Your task to perform on an android device: Search for dell xps on target.com, select the first entry, and add it to the cart. Image 0: 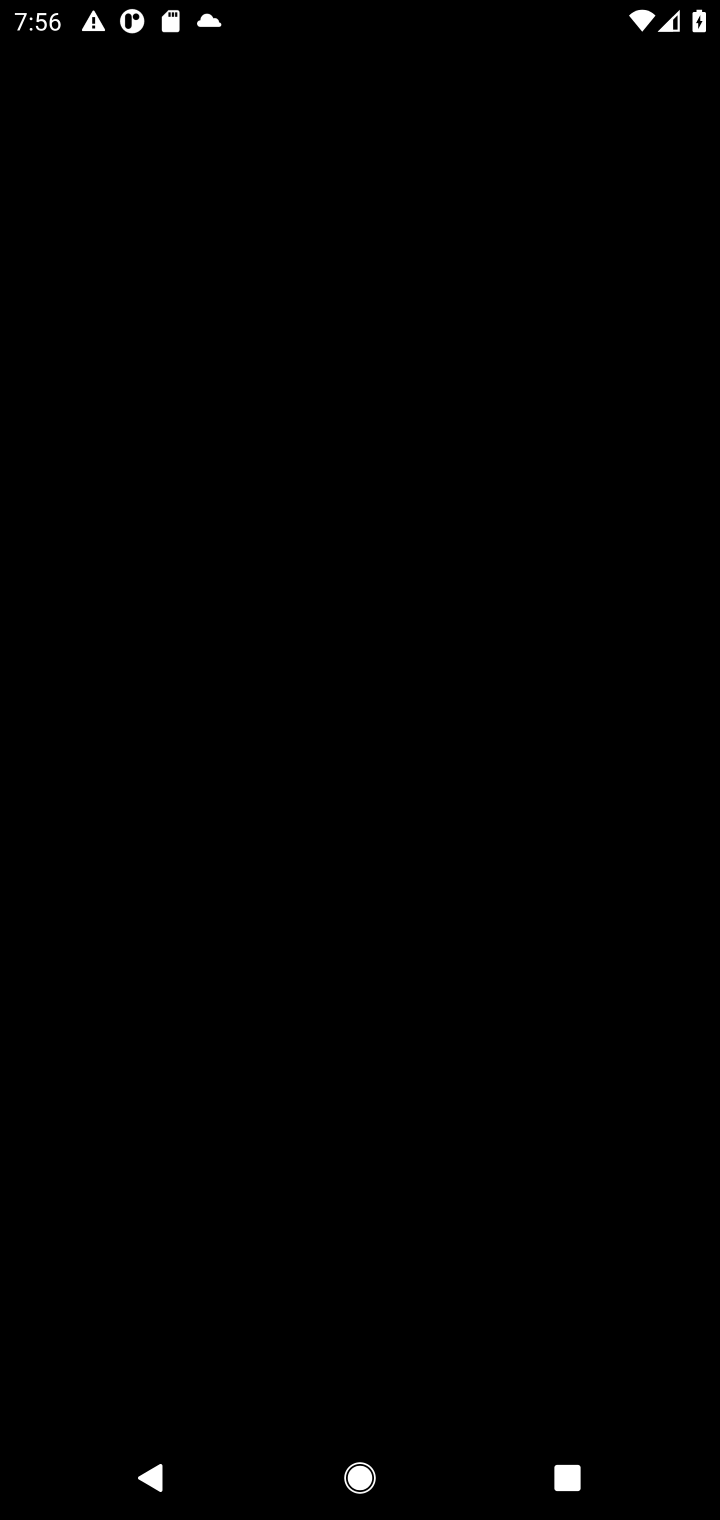
Step 0: press home button
Your task to perform on an android device: Search for dell xps on target.com, select the first entry, and add it to the cart. Image 1: 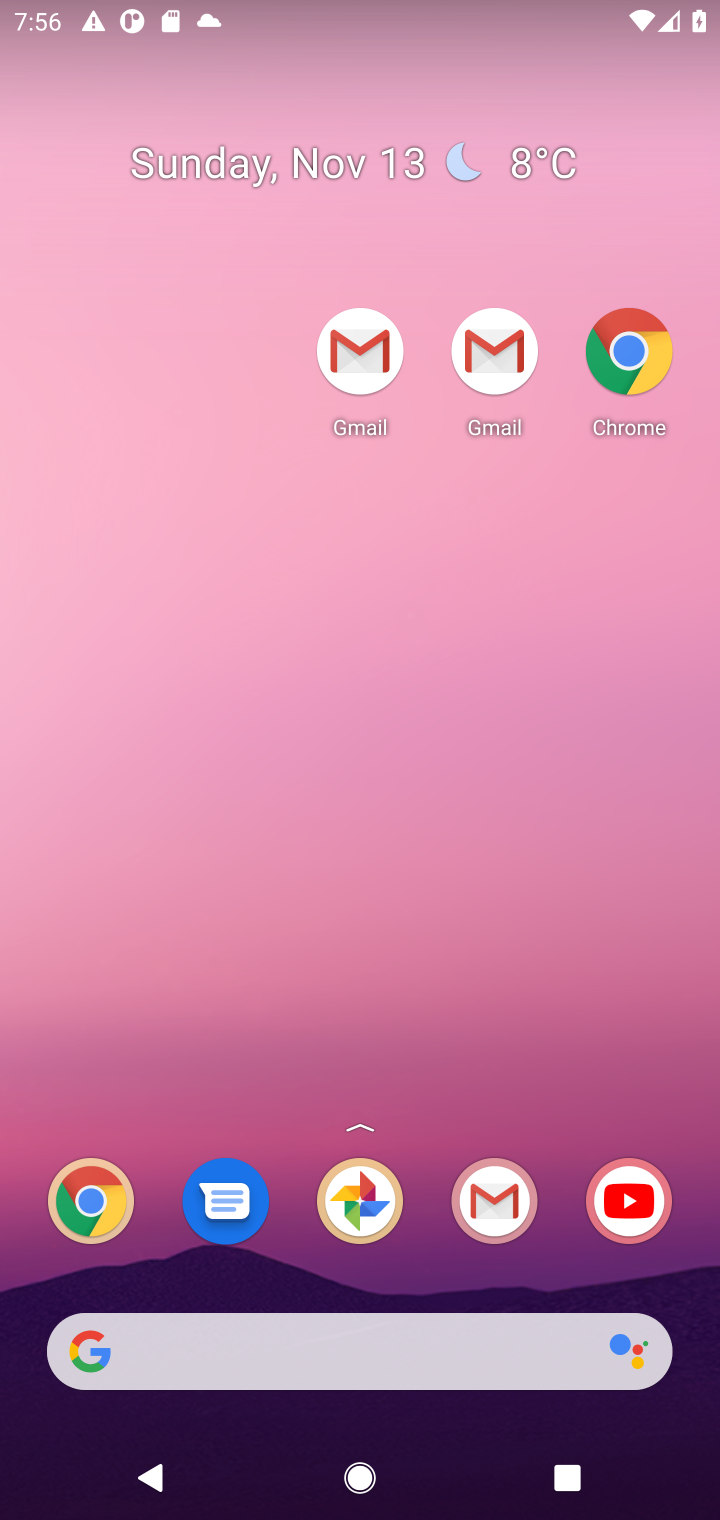
Step 1: drag from (412, 1287) to (289, 54)
Your task to perform on an android device: Search for dell xps on target.com, select the first entry, and add it to the cart. Image 2: 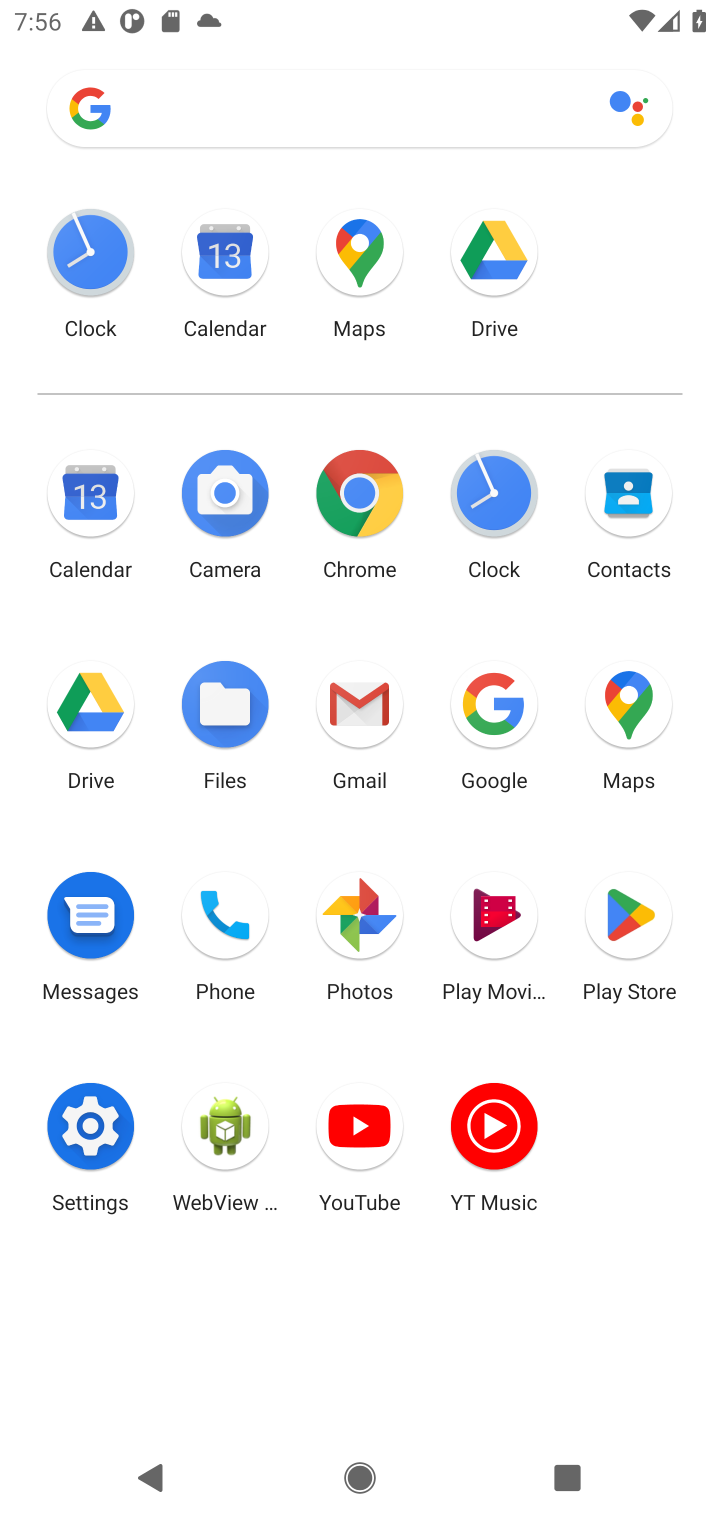
Step 2: click (351, 498)
Your task to perform on an android device: Search for dell xps on target.com, select the first entry, and add it to the cart. Image 3: 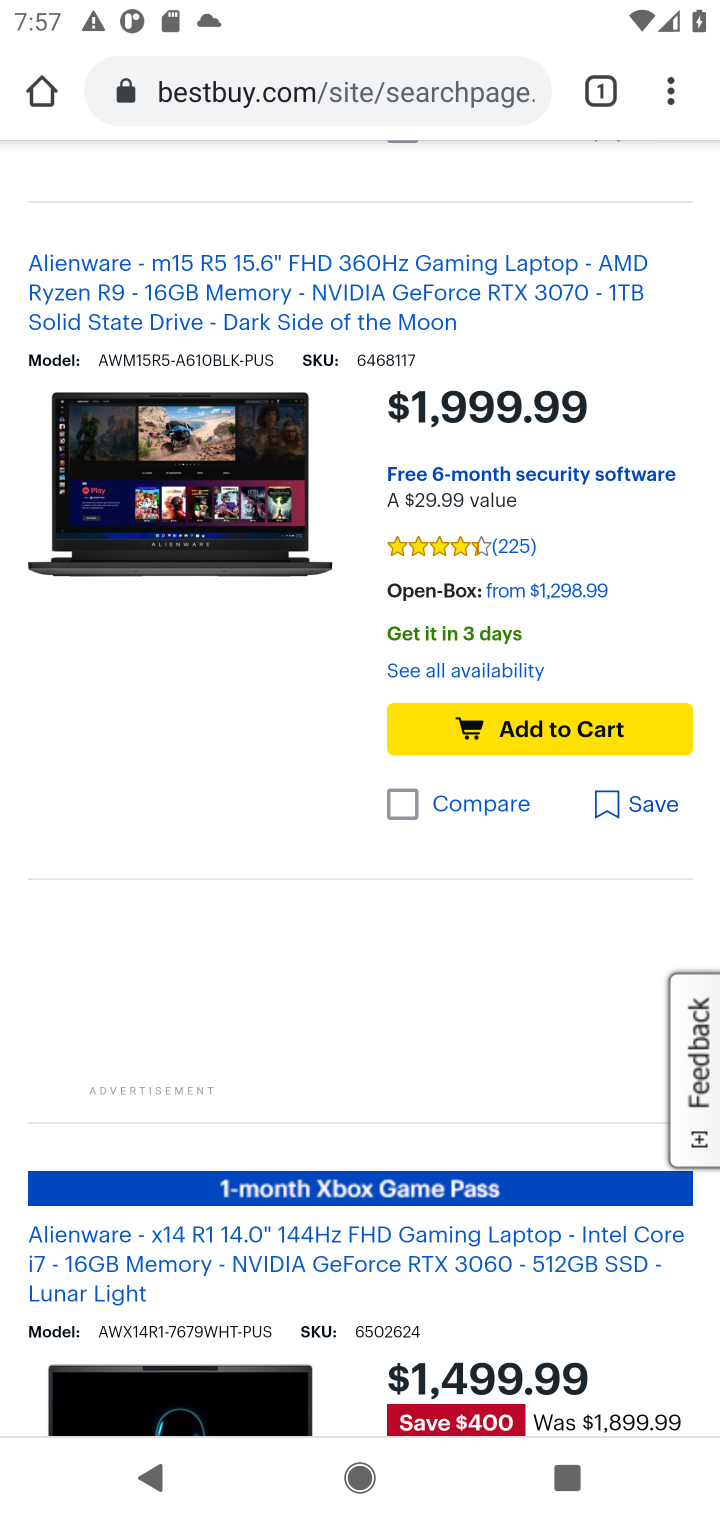
Step 3: click (362, 96)
Your task to perform on an android device: Search for dell xps on target.com, select the first entry, and add it to the cart. Image 4: 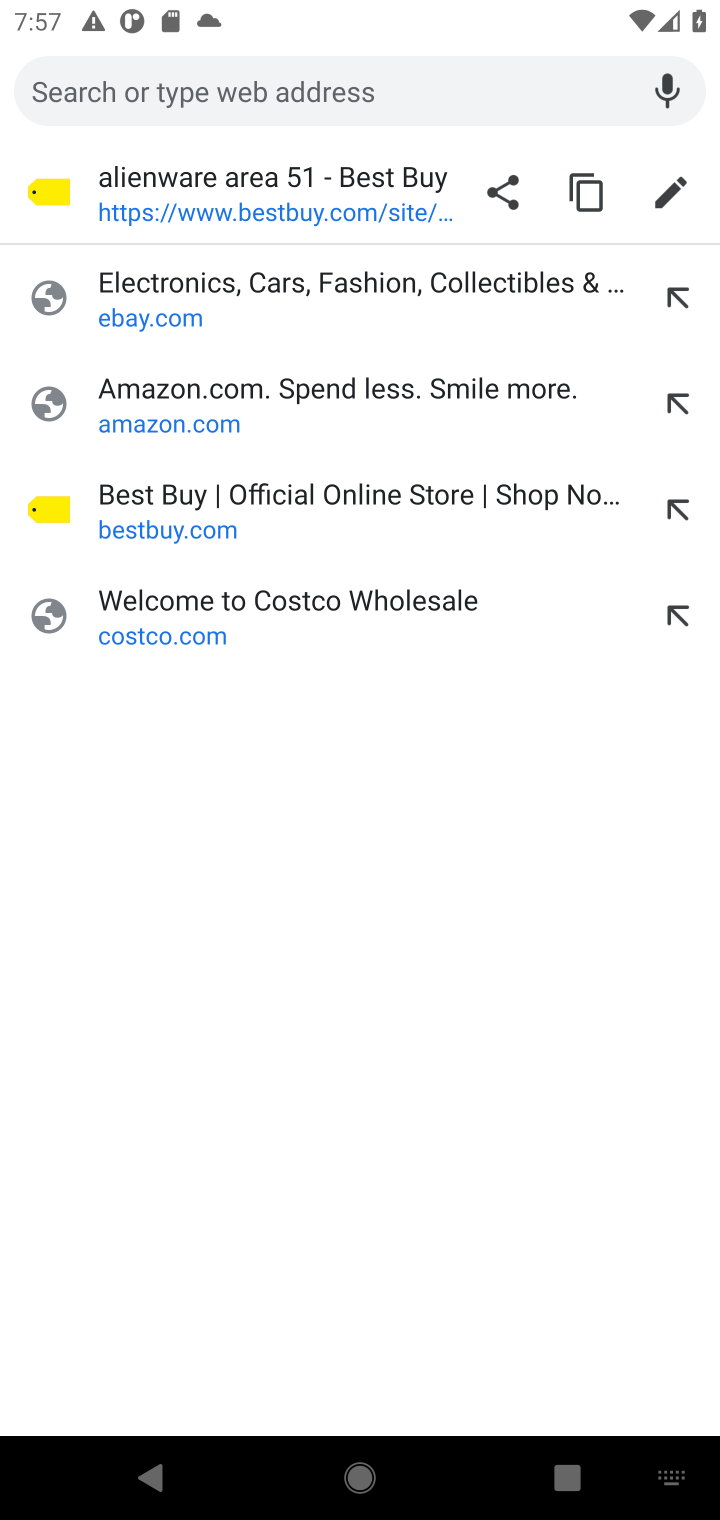
Step 4: type "target.com"
Your task to perform on an android device: Search for dell xps on target.com, select the first entry, and add it to the cart. Image 5: 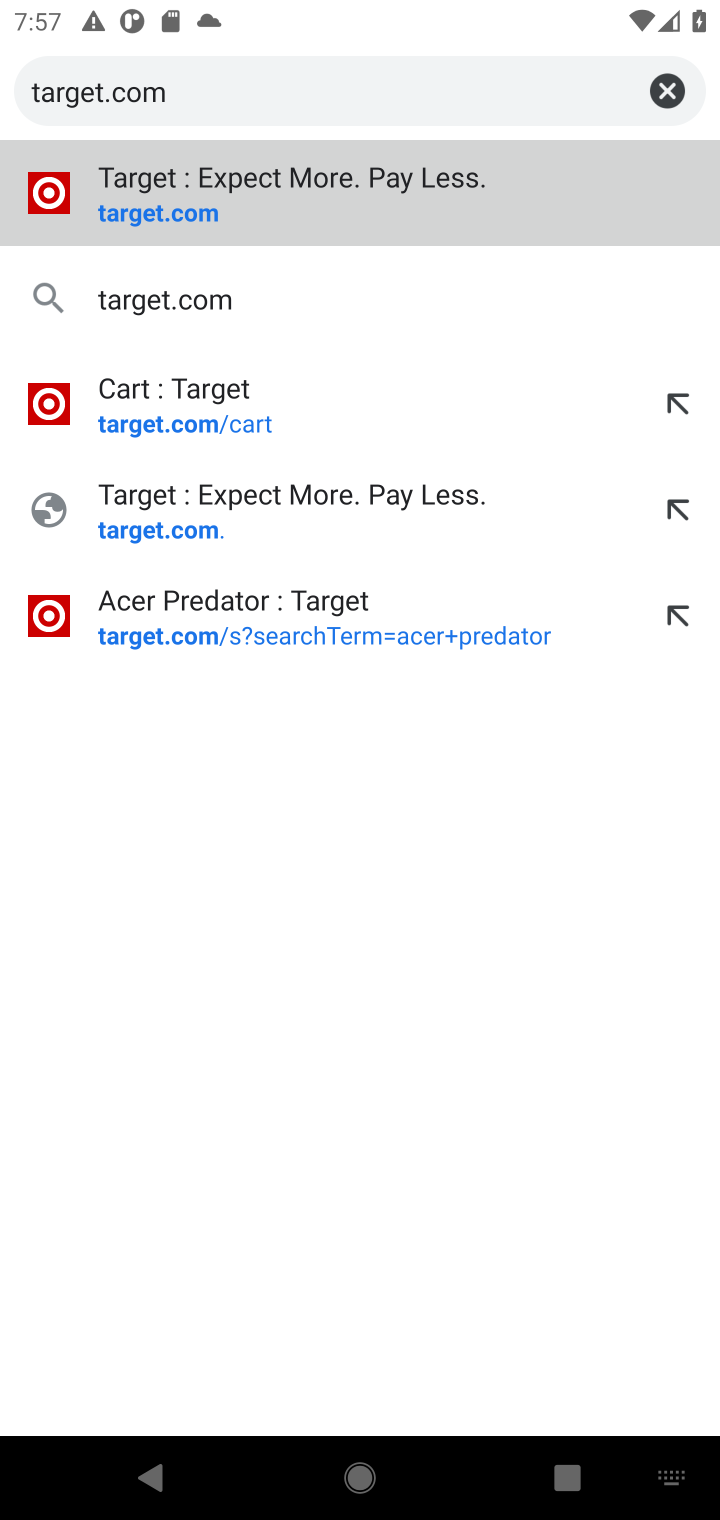
Step 5: press enter
Your task to perform on an android device: Search for dell xps on target.com, select the first entry, and add it to the cart. Image 6: 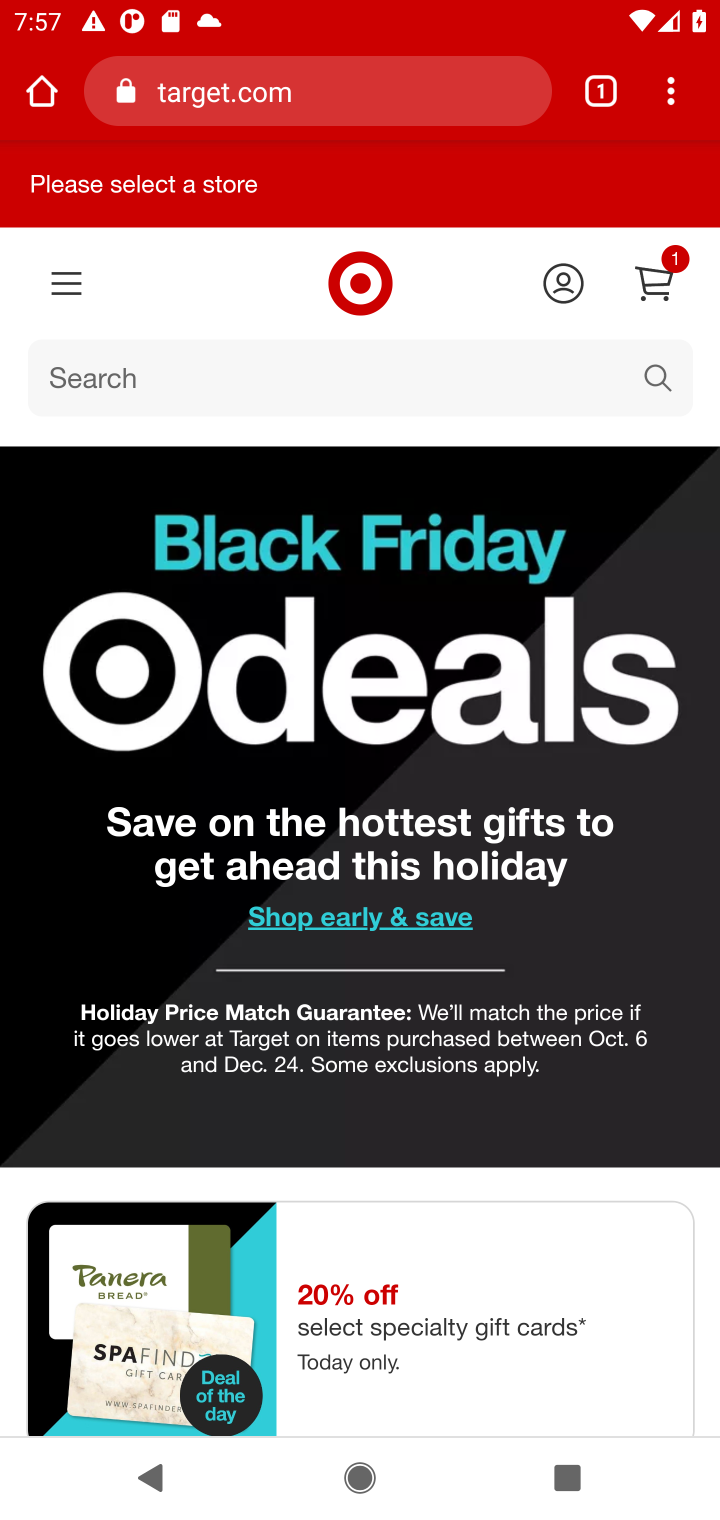
Step 6: click (471, 387)
Your task to perform on an android device: Search for dell xps on target.com, select the first entry, and add it to the cart. Image 7: 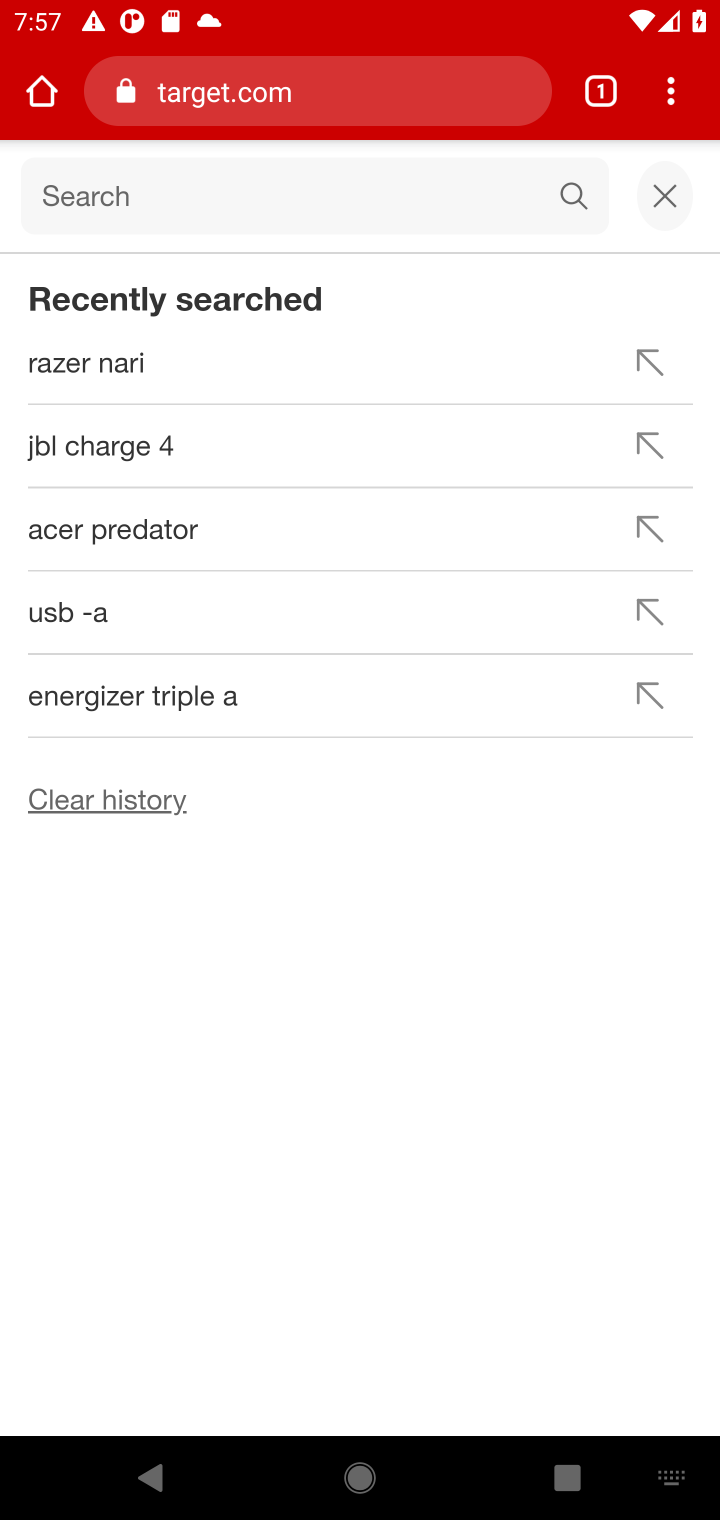
Step 7: type "dell xps"
Your task to perform on an android device: Search for dell xps on target.com, select the first entry, and add it to the cart. Image 8: 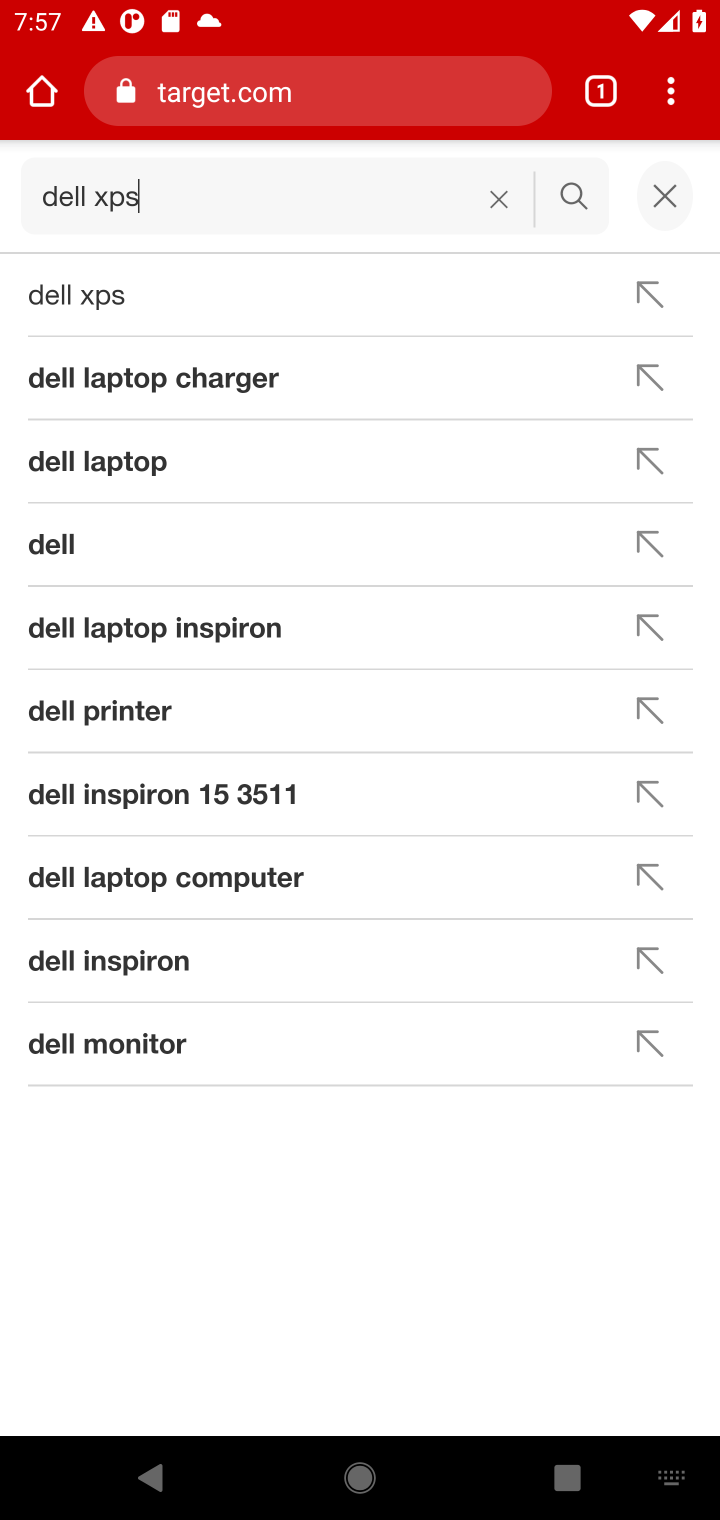
Step 8: press enter
Your task to perform on an android device: Search for dell xps on target.com, select the first entry, and add it to the cart. Image 9: 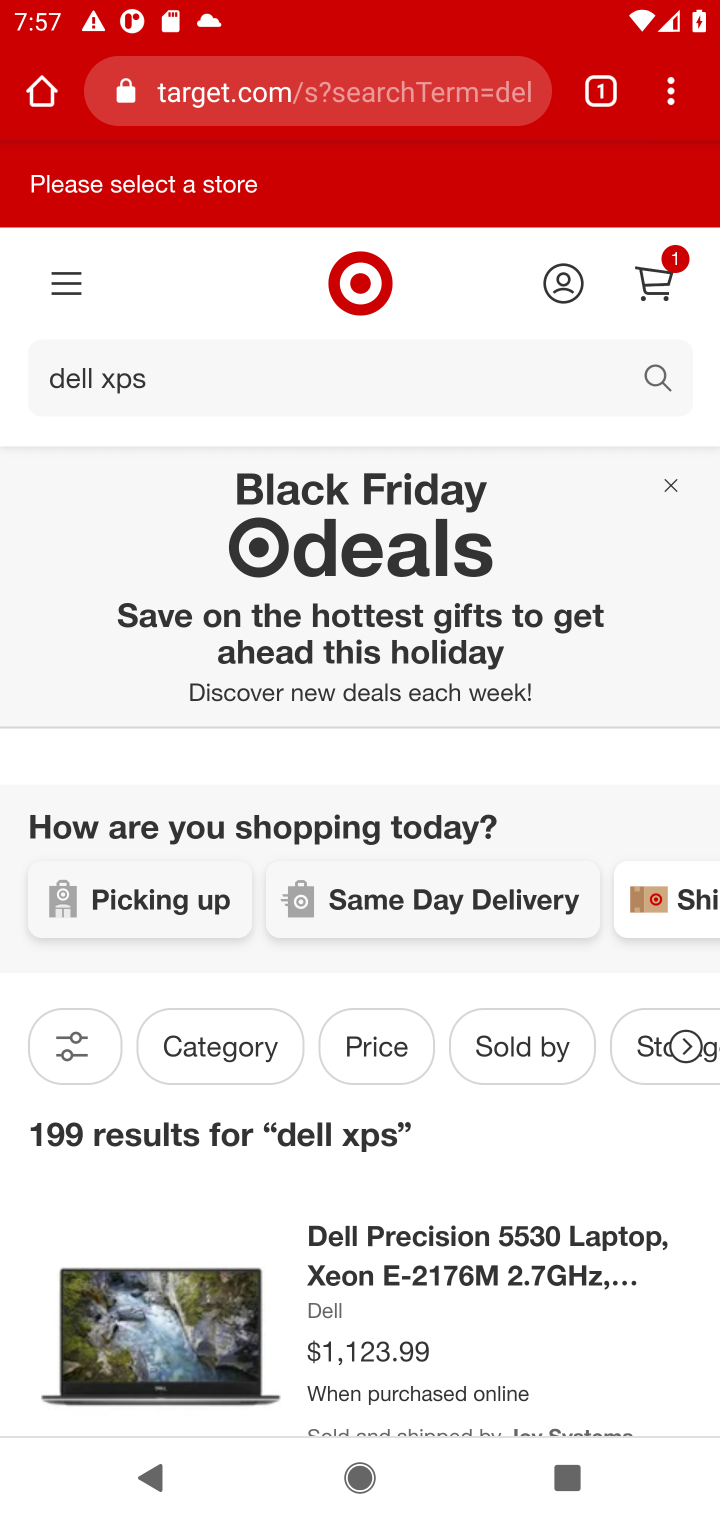
Step 9: task complete